Your task to perform on an android device: Do I have any events tomorrow? Image 0: 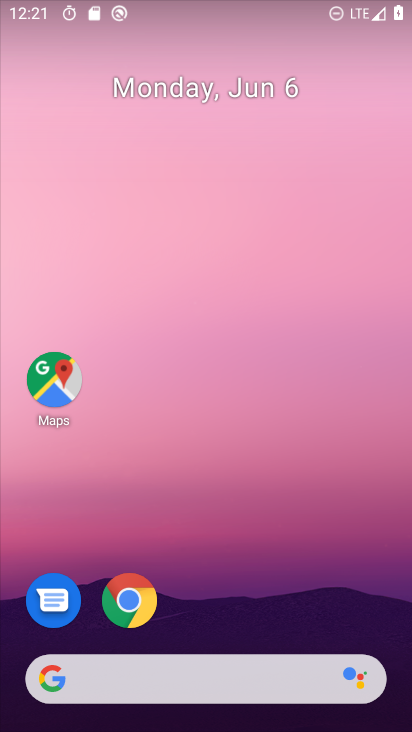
Step 0: drag from (228, 630) to (231, 210)
Your task to perform on an android device: Do I have any events tomorrow? Image 1: 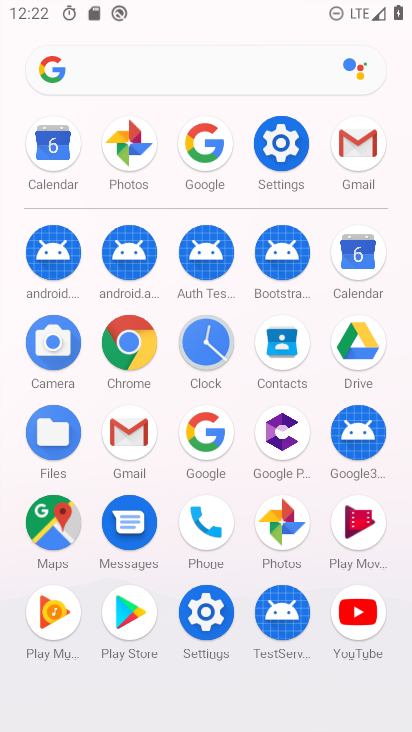
Step 1: click (372, 269)
Your task to perform on an android device: Do I have any events tomorrow? Image 2: 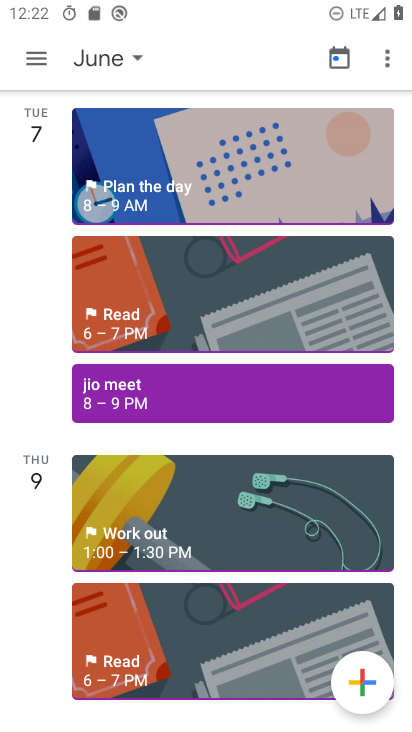
Step 2: click (135, 61)
Your task to perform on an android device: Do I have any events tomorrow? Image 3: 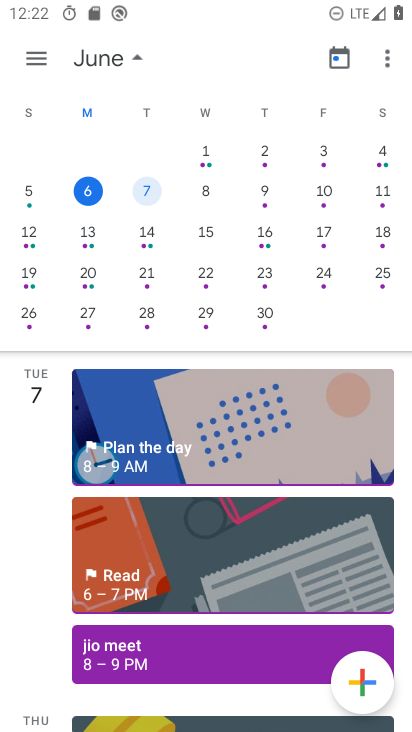
Step 3: drag from (240, 619) to (267, 647)
Your task to perform on an android device: Do I have any events tomorrow? Image 4: 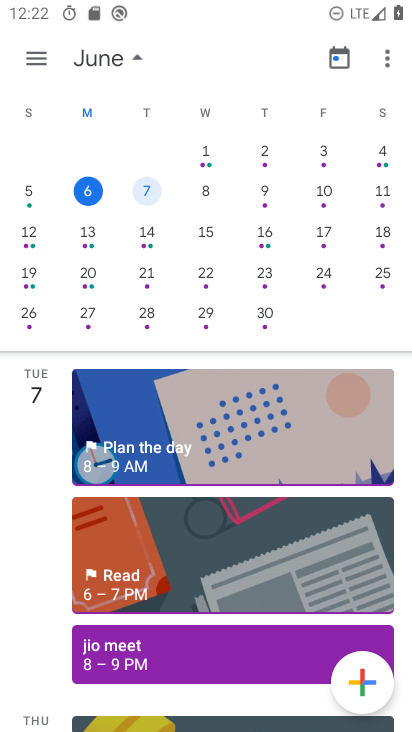
Step 4: click (161, 189)
Your task to perform on an android device: Do I have any events tomorrow? Image 5: 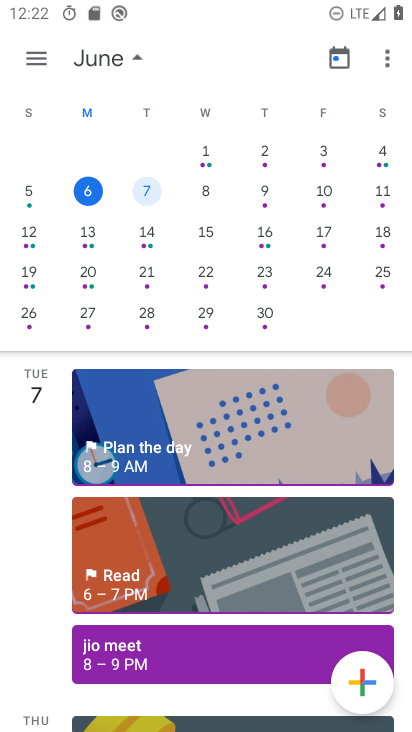
Step 5: click (138, 194)
Your task to perform on an android device: Do I have any events tomorrow? Image 6: 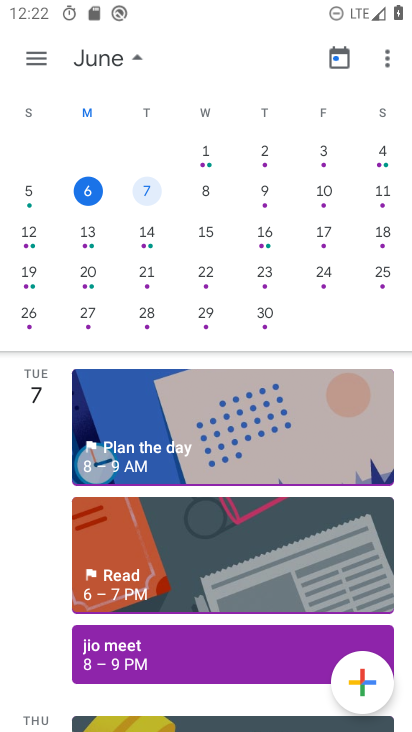
Step 6: task complete